Your task to perform on an android device: Open the calculator app Image 0: 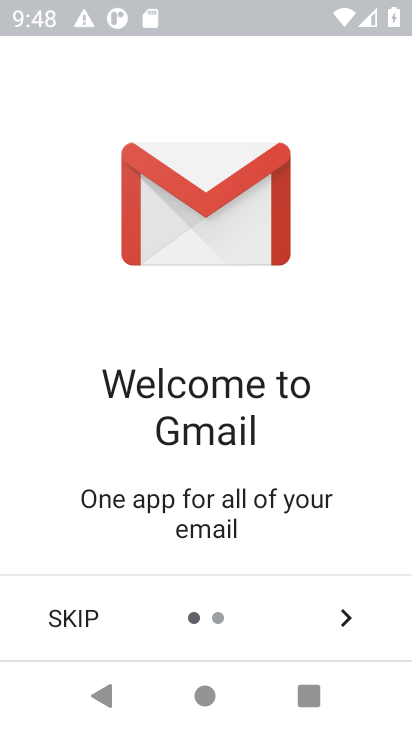
Step 0: press home button
Your task to perform on an android device: Open the calculator app Image 1: 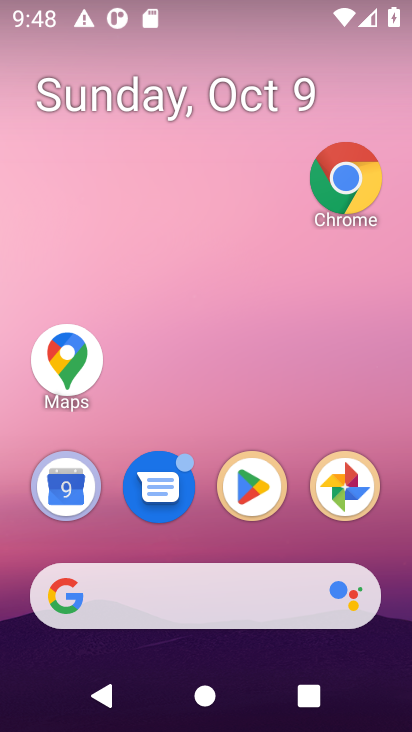
Step 1: drag from (195, 623) to (241, 118)
Your task to perform on an android device: Open the calculator app Image 2: 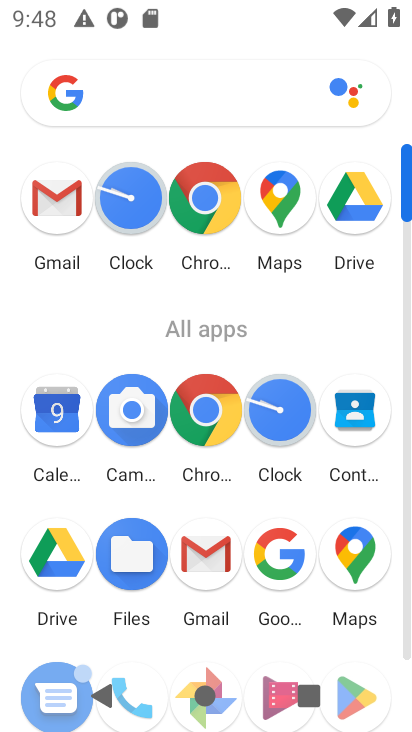
Step 2: drag from (241, 416) to (258, 272)
Your task to perform on an android device: Open the calculator app Image 3: 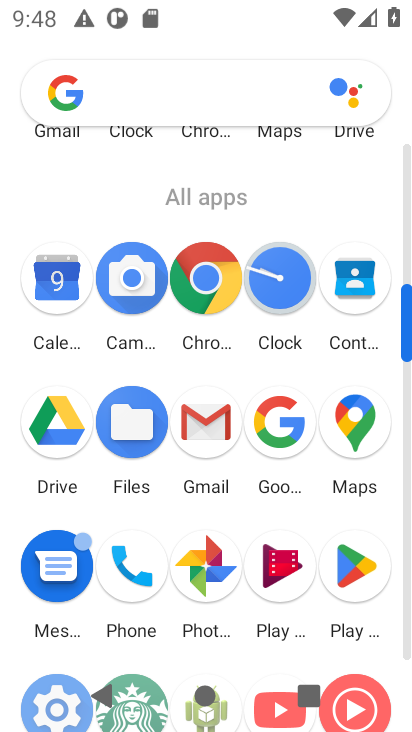
Step 3: drag from (256, 470) to (273, 333)
Your task to perform on an android device: Open the calculator app Image 4: 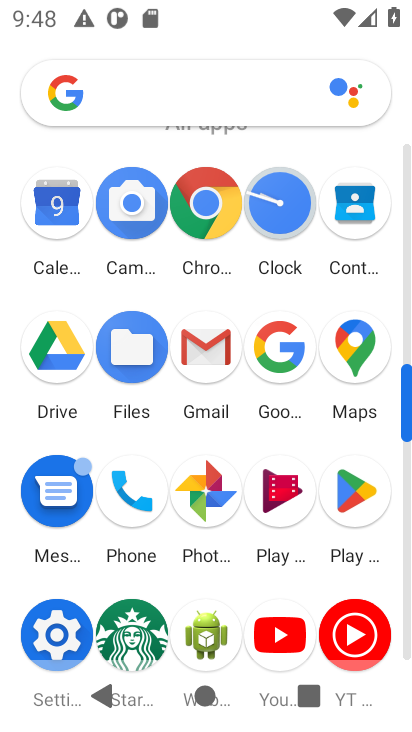
Step 4: drag from (247, 480) to (277, 261)
Your task to perform on an android device: Open the calculator app Image 5: 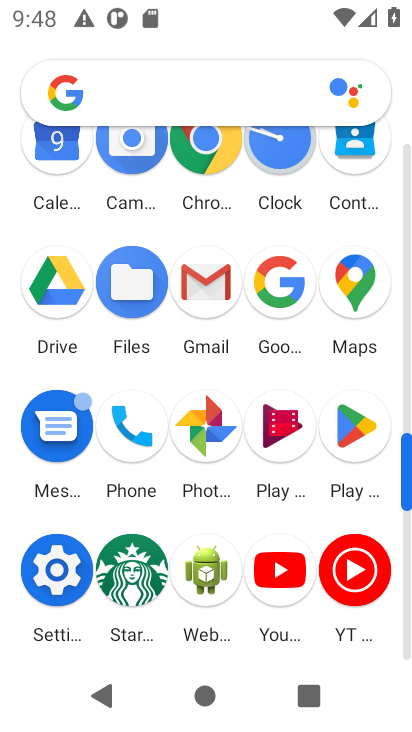
Step 5: drag from (277, 260) to (271, 393)
Your task to perform on an android device: Open the calculator app Image 6: 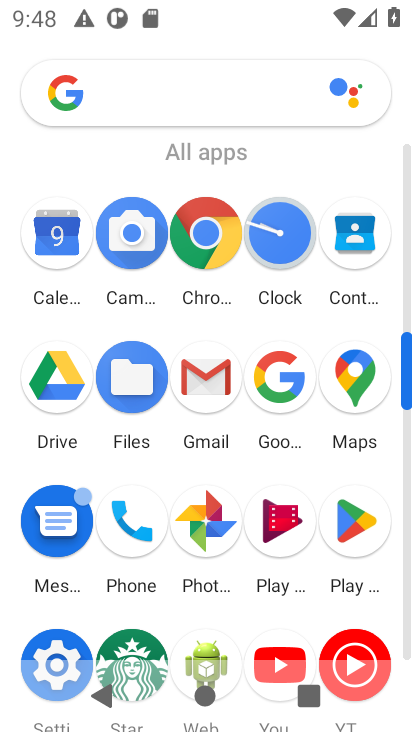
Step 6: drag from (270, 218) to (270, 361)
Your task to perform on an android device: Open the calculator app Image 7: 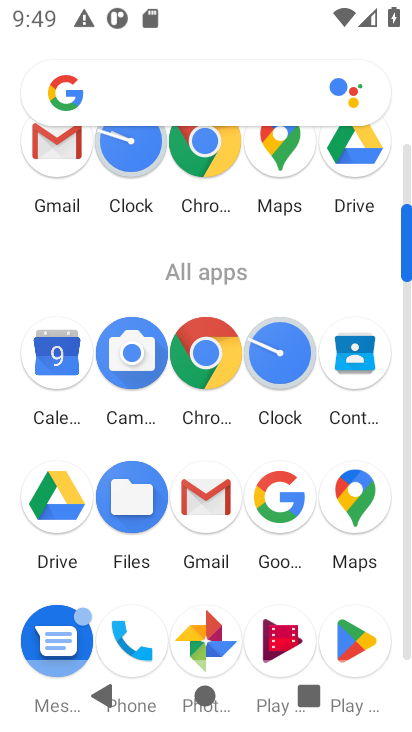
Step 7: click (223, 107)
Your task to perform on an android device: Open the calculator app Image 8: 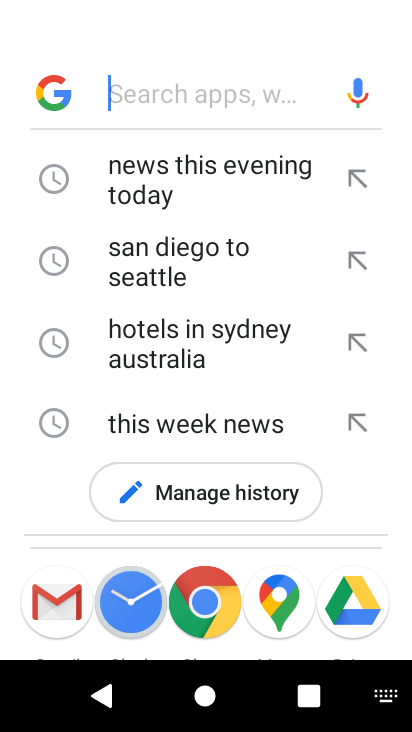
Step 8: type "calculator"
Your task to perform on an android device: Open the calculator app Image 9: 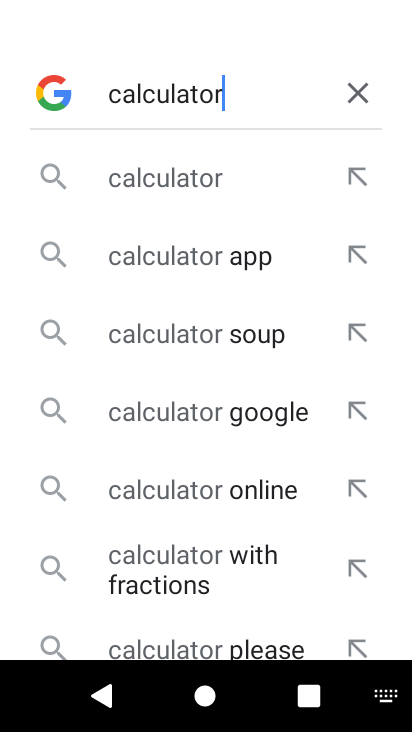
Step 9: click (232, 175)
Your task to perform on an android device: Open the calculator app Image 10: 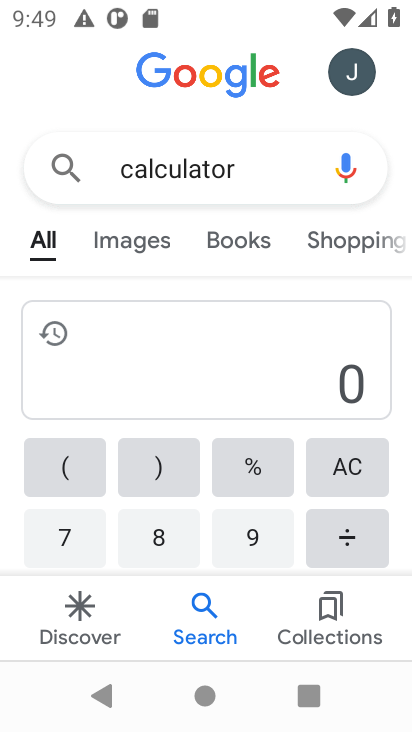
Step 10: task complete